Your task to perform on an android device: see tabs open on other devices in the chrome app Image 0: 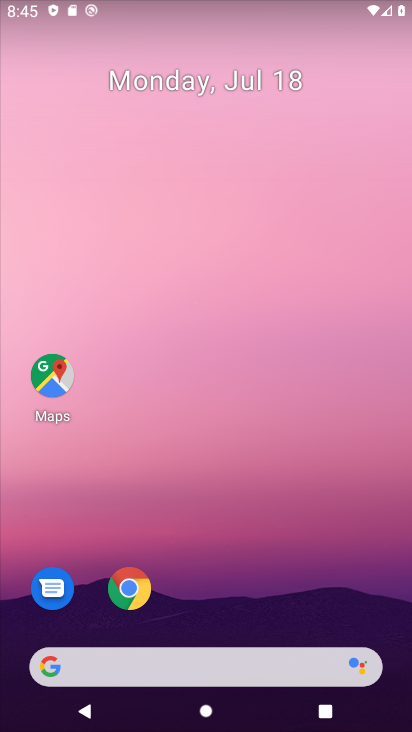
Step 0: press home button
Your task to perform on an android device: see tabs open on other devices in the chrome app Image 1: 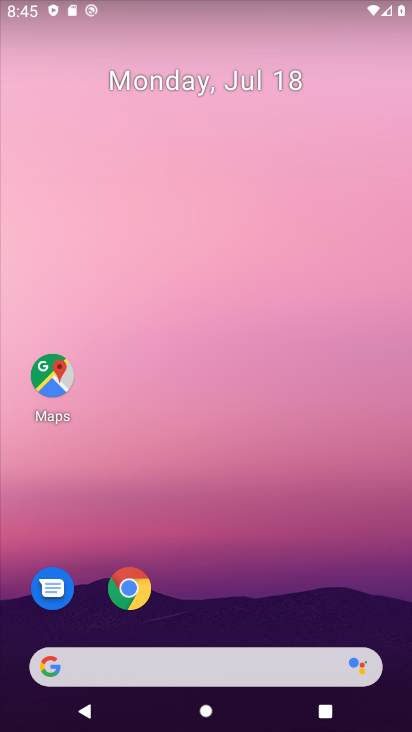
Step 1: press home button
Your task to perform on an android device: see tabs open on other devices in the chrome app Image 2: 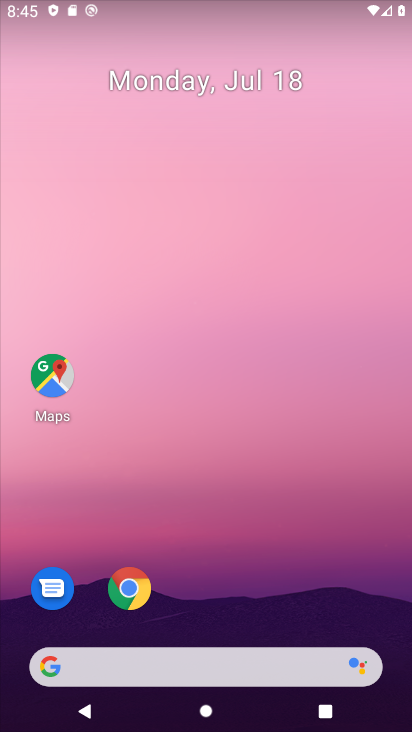
Step 2: drag from (260, 614) to (194, 211)
Your task to perform on an android device: see tabs open on other devices in the chrome app Image 3: 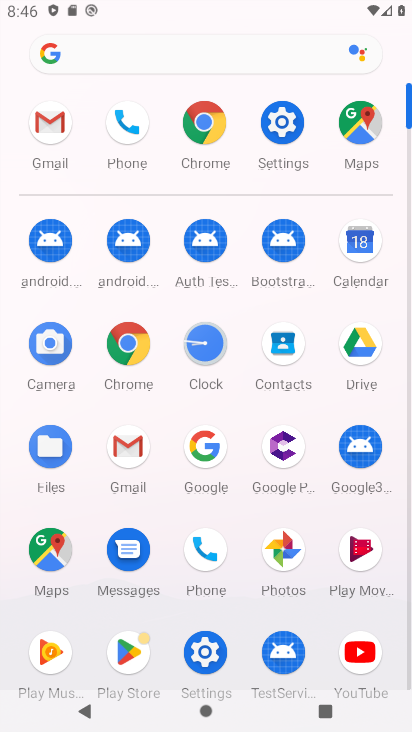
Step 3: click (129, 368)
Your task to perform on an android device: see tabs open on other devices in the chrome app Image 4: 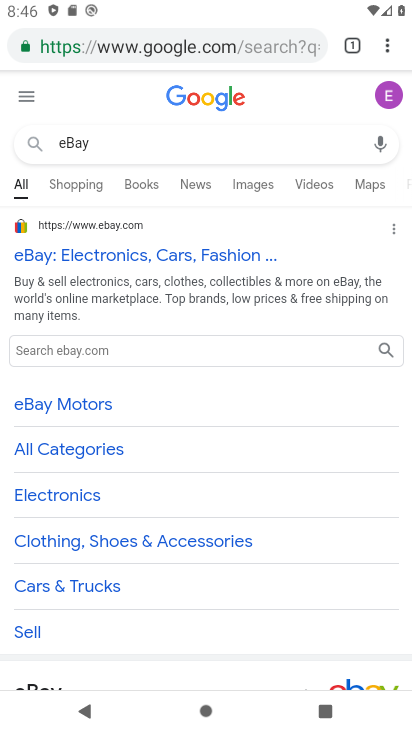
Step 4: task complete